Your task to perform on an android device: change notification settings in the gmail app Image 0: 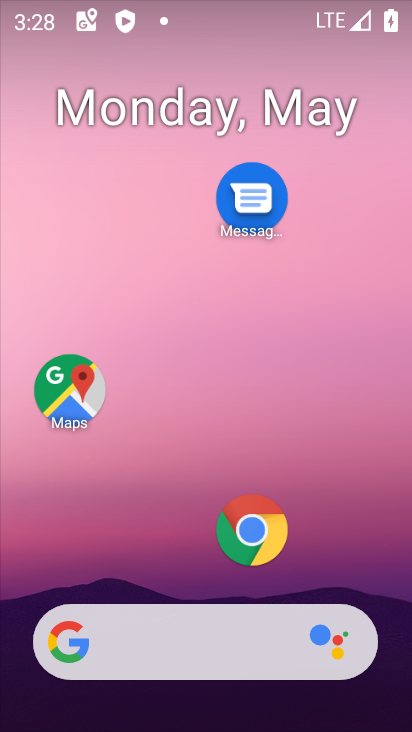
Step 0: drag from (154, 563) to (255, 59)
Your task to perform on an android device: change notification settings in the gmail app Image 1: 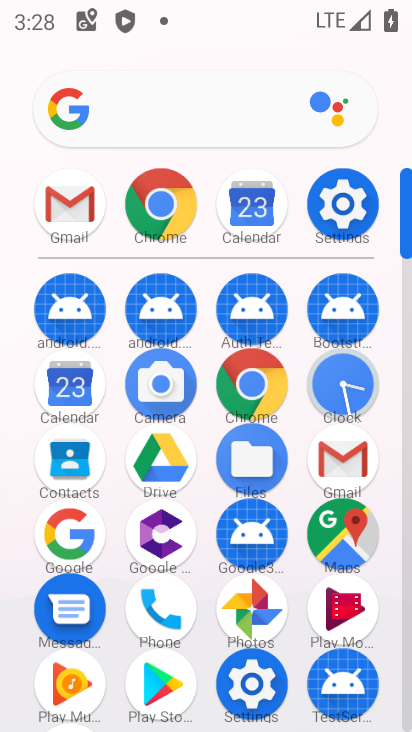
Step 1: click (55, 202)
Your task to perform on an android device: change notification settings in the gmail app Image 2: 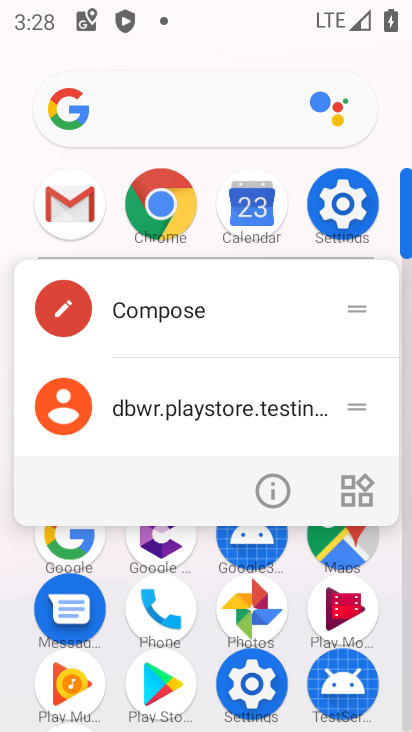
Step 2: click (268, 482)
Your task to perform on an android device: change notification settings in the gmail app Image 3: 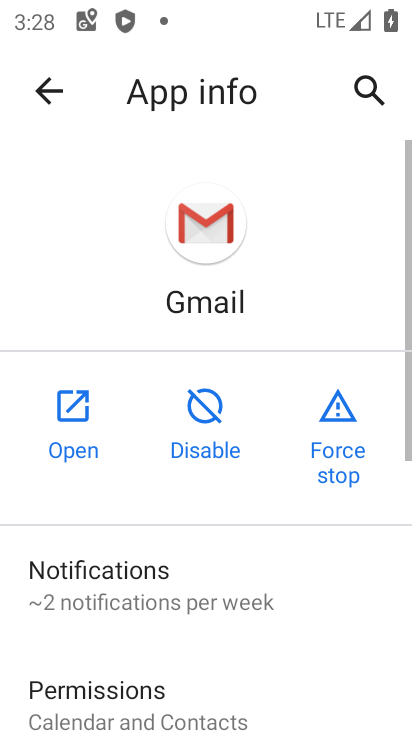
Step 3: click (104, 599)
Your task to perform on an android device: change notification settings in the gmail app Image 4: 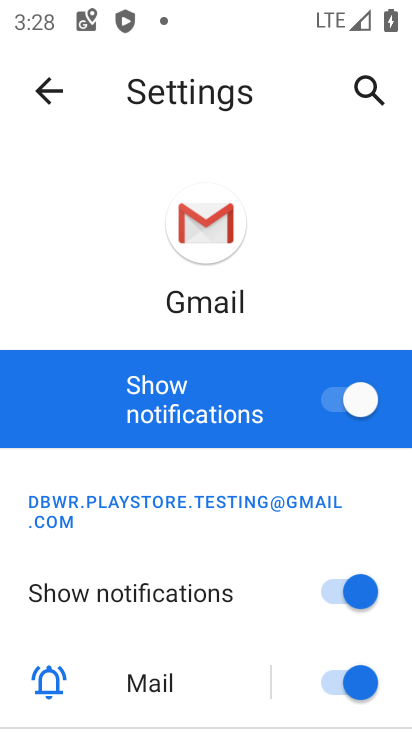
Step 4: drag from (189, 634) to (215, 183)
Your task to perform on an android device: change notification settings in the gmail app Image 5: 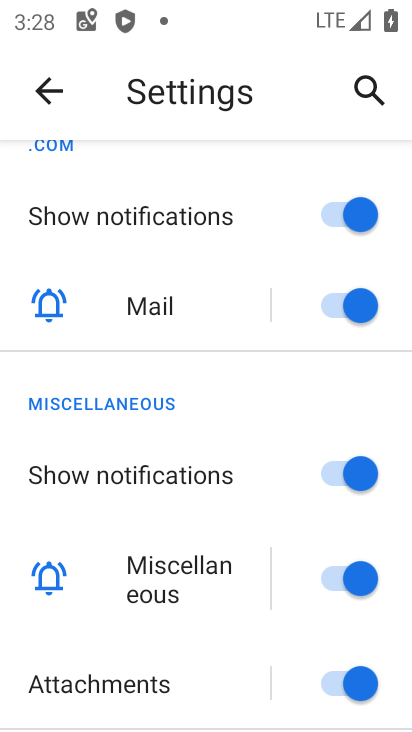
Step 5: click (353, 305)
Your task to perform on an android device: change notification settings in the gmail app Image 6: 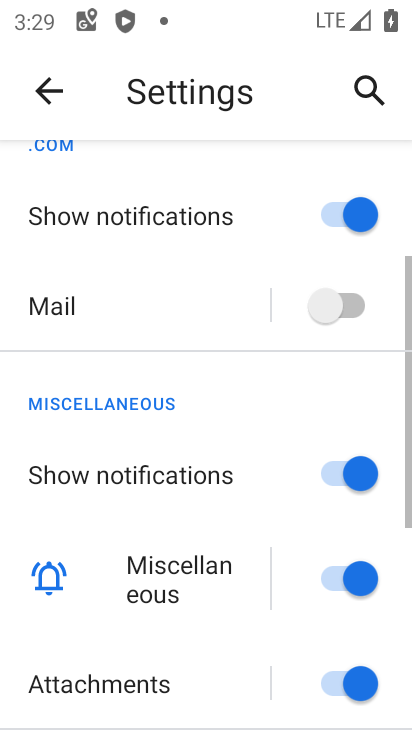
Step 6: task complete